Your task to perform on an android device: delete browsing data in the chrome app Image 0: 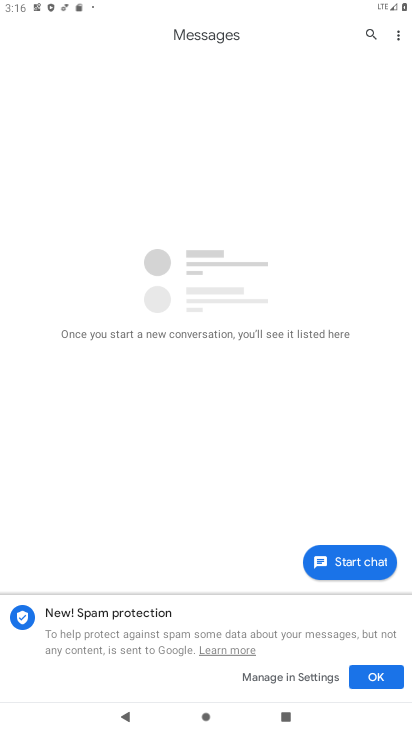
Step 0: press home button
Your task to perform on an android device: delete browsing data in the chrome app Image 1: 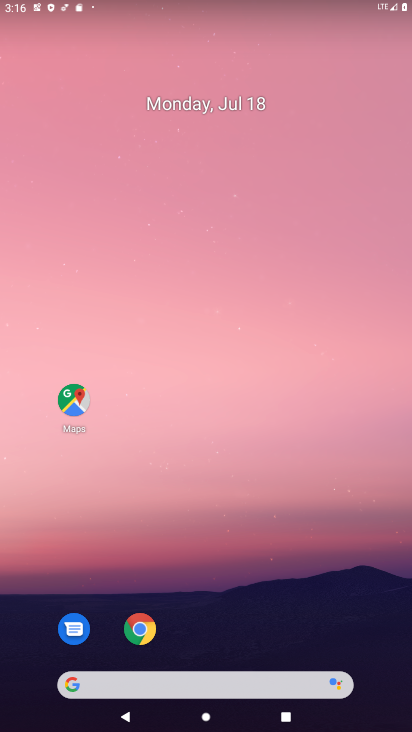
Step 1: click (144, 628)
Your task to perform on an android device: delete browsing data in the chrome app Image 2: 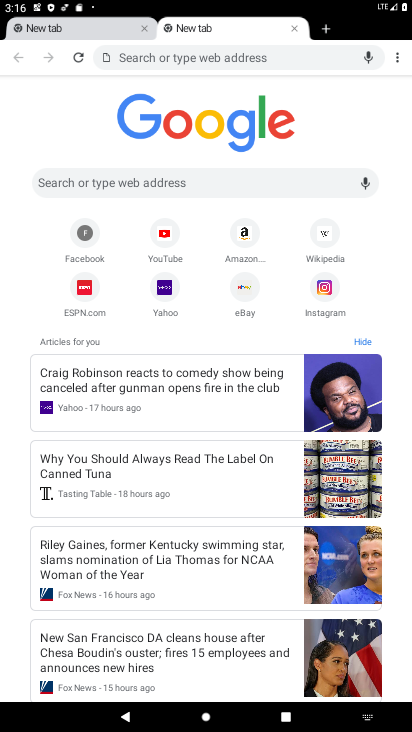
Step 2: click (394, 57)
Your task to perform on an android device: delete browsing data in the chrome app Image 3: 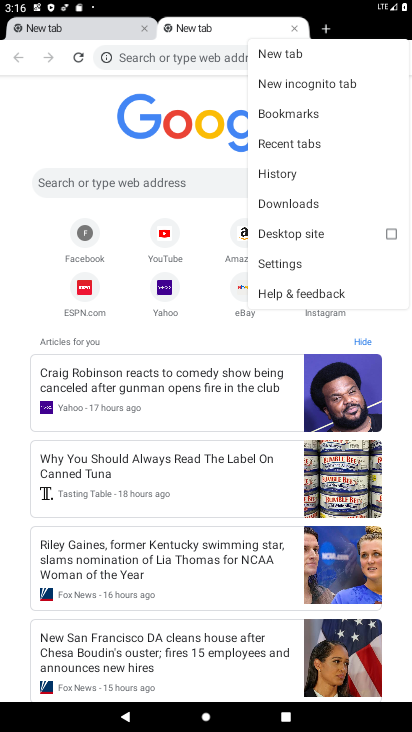
Step 3: click (279, 172)
Your task to perform on an android device: delete browsing data in the chrome app Image 4: 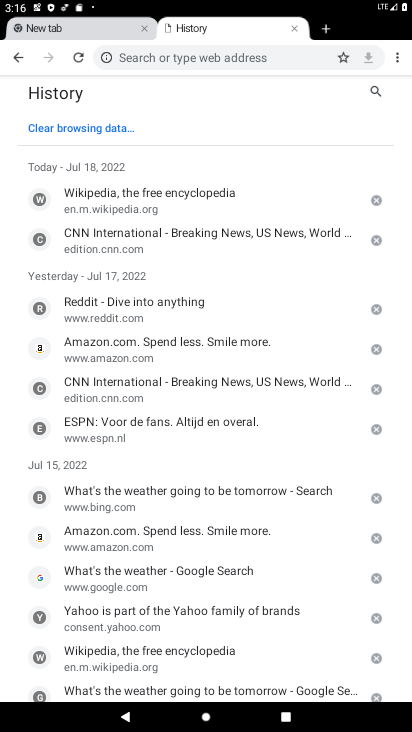
Step 4: click (93, 125)
Your task to perform on an android device: delete browsing data in the chrome app Image 5: 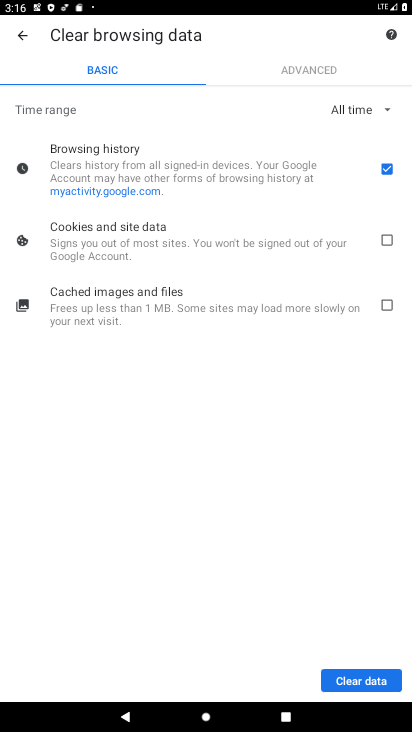
Step 5: click (388, 236)
Your task to perform on an android device: delete browsing data in the chrome app Image 6: 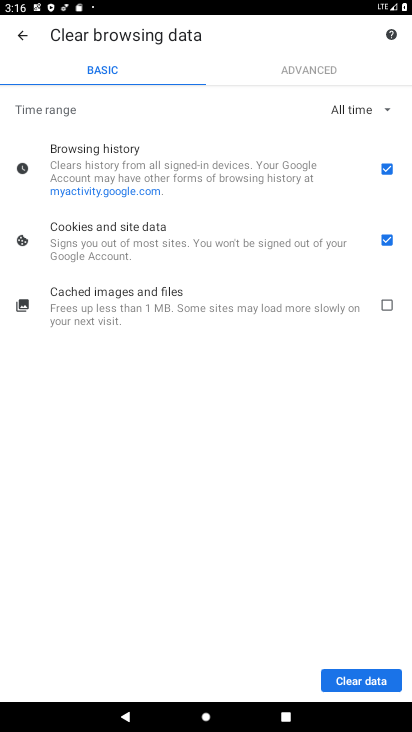
Step 6: click (385, 301)
Your task to perform on an android device: delete browsing data in the chrome app Image 7: 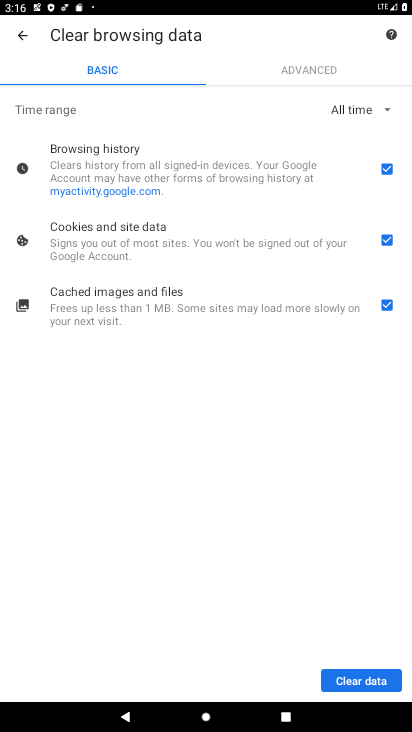
Step 7: click (370, 681)
Your task to perform on an android device: delete browsing data in the chrome app Image 8: 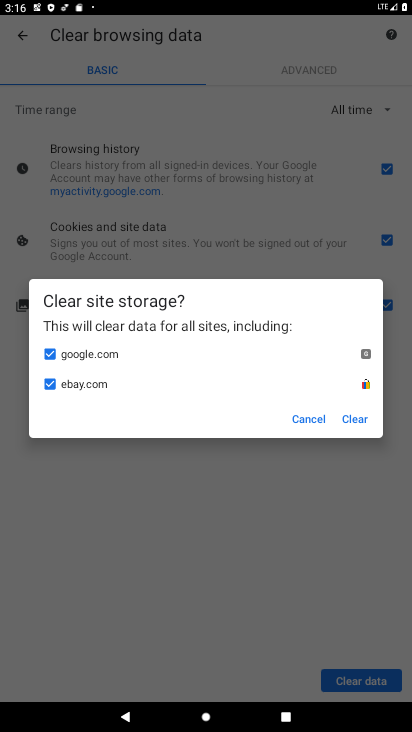
Step 8: click (356, 422)
Your task to perform on an android device: delete browsing data in the chrome app Image 9: 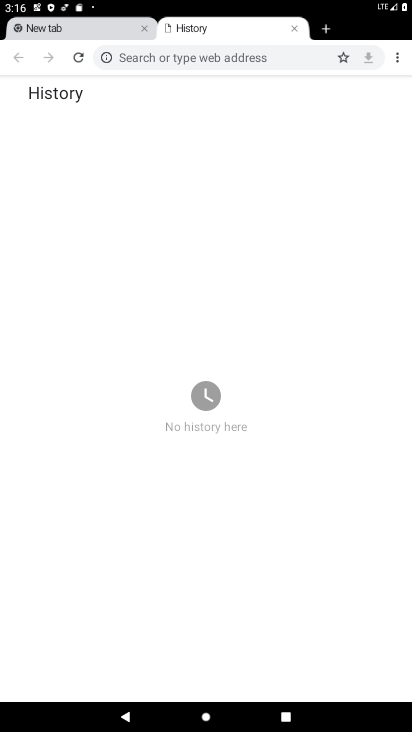
Step 9: task complete